Your task to perform on an android device: Go to Amazon Image 0: 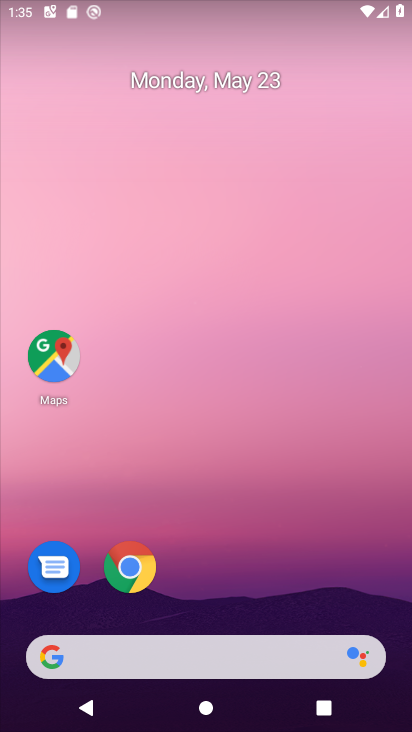
Step 0: drag from (288, 575) to (360, 107)
Your task to perform on an android device: Go to Amazon Image 1: 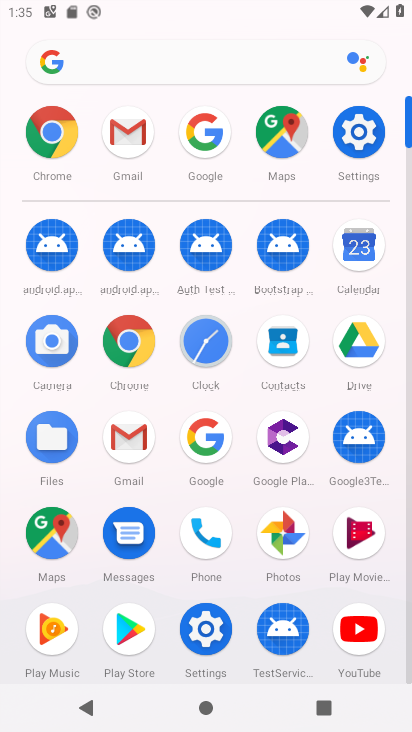
Step 1: click (149, 356)
Your task to perform on an android device: Go to Amazon Image 2: 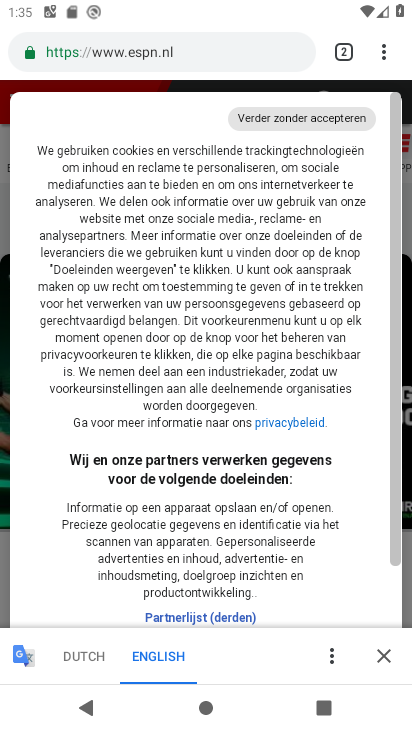
Step 2: click (340, 61)
Your task to perform on an android device: Go to Amazon Image 3: 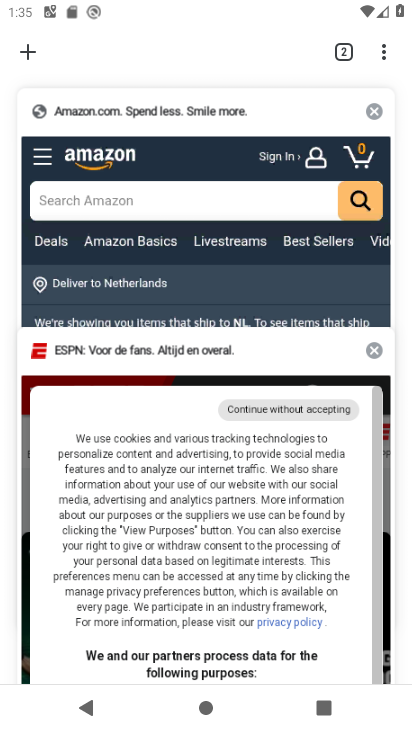
Step 3: click (21, 61)
Your task to perform on an android device: Go to Amazon Image 4: 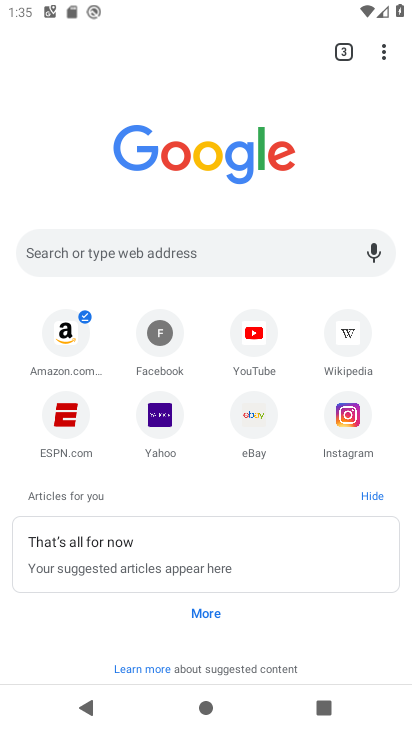
Step 4: click (77, 351)
Your task to perform on an android device: Go to Amazon Image 5: 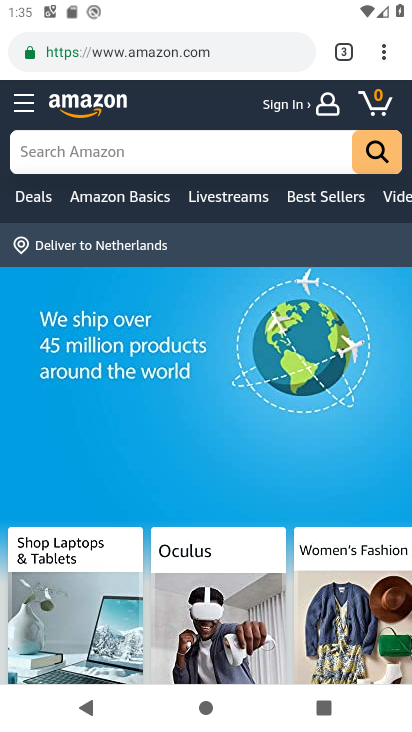
Step 5: task complete